Your task to perform on an android device: show emergency info Image 0: 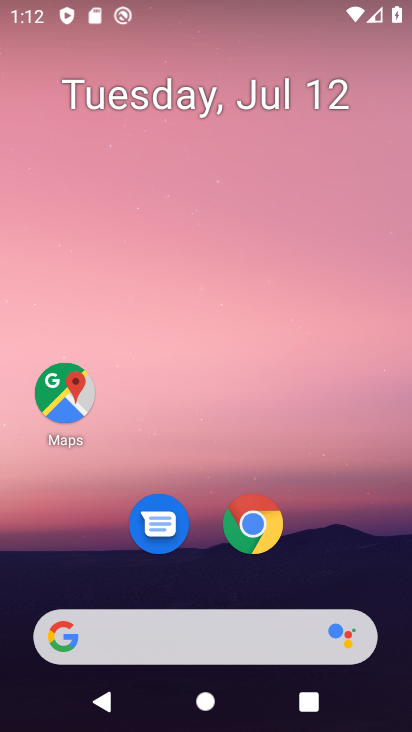
Step 0: drag from (338, 528) to (299, 46)
Your task to perform on an android device: show emergency info Image 1: 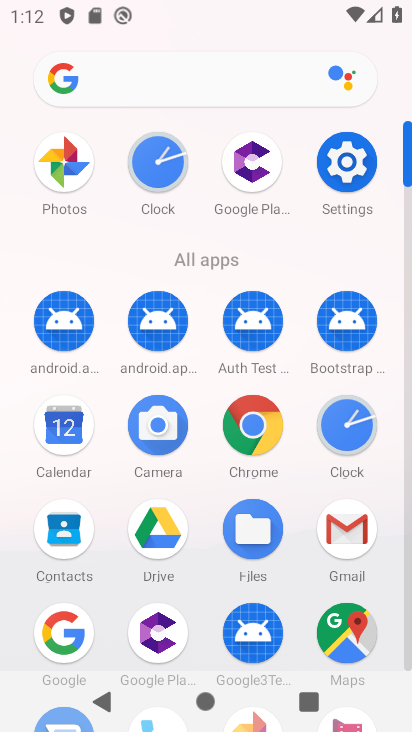
Step 1: click (350, 167)
Your task to perform on an android device: show emergency info Image 2: 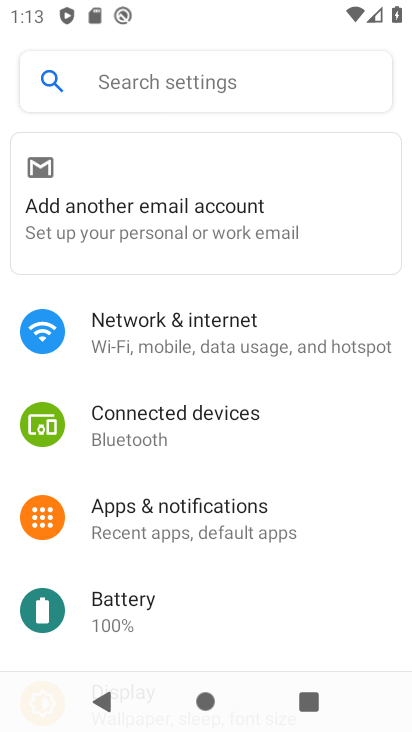
Step 2: drag from (220, 553) to (212, 156)
Your task to perform on an android device: show emergency info Image 3: 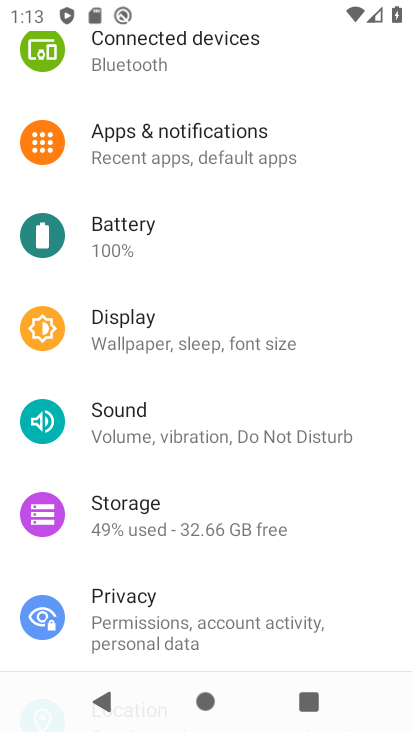
Step 3: drag from (194, 558) to (247, 52)
Your task to perform on an android device: show emergency info Image 4: 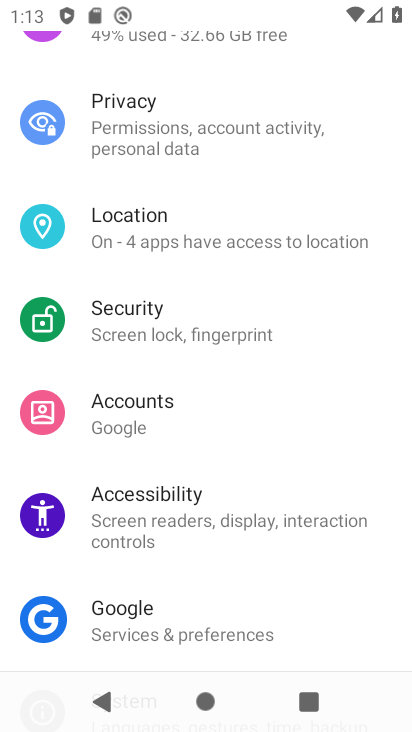
Step 4: drag from (218, 577) to (238, 218)
Your task to perform on an android device: show emergency info Image 5: 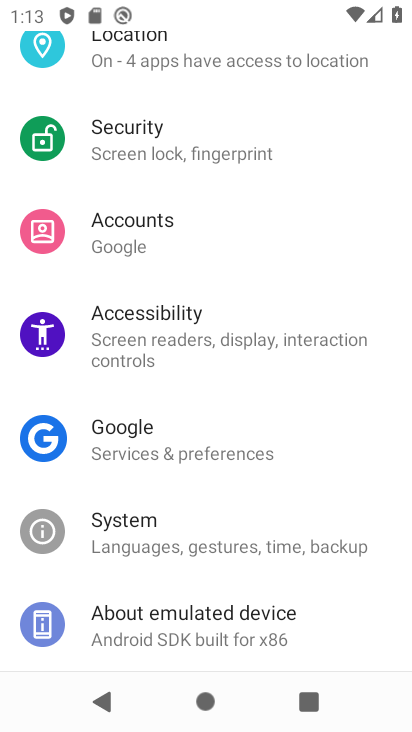
Step 5: click (209, 625)
Your task to perform on an android device: show emergency info Image 6: 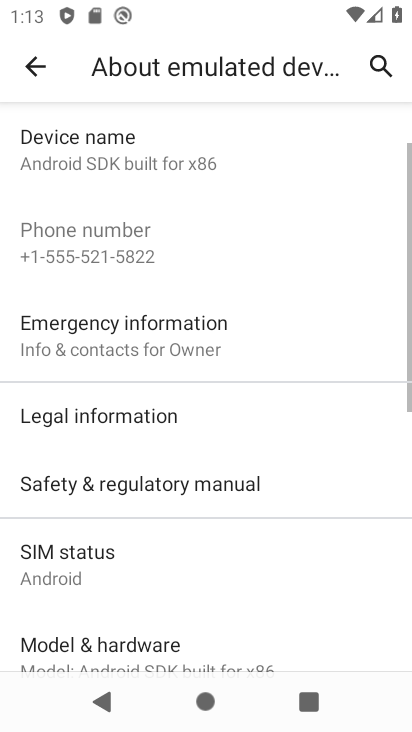
Step 6: click (193, 336)
Your task to perform on an android device: show emergency info Image 7: 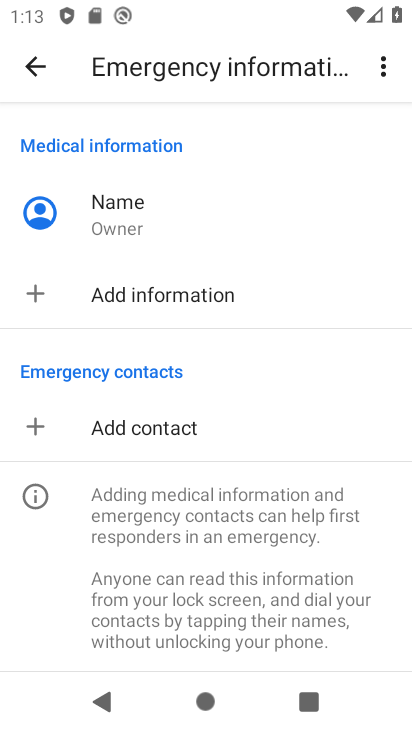
Step 7: task complete